Your task to perform on an android device: toggle pop-ups in chrome Image 0: 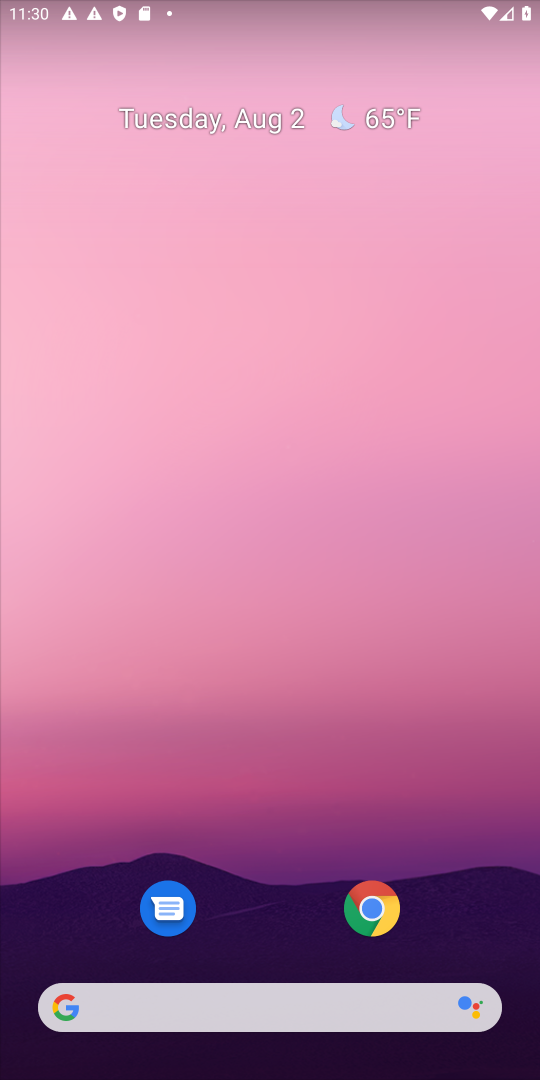
Step 0: drag from (278, 867) to (359, 82)
Your task to perform on an android device: toggle pop-ups in chrome Image 1: 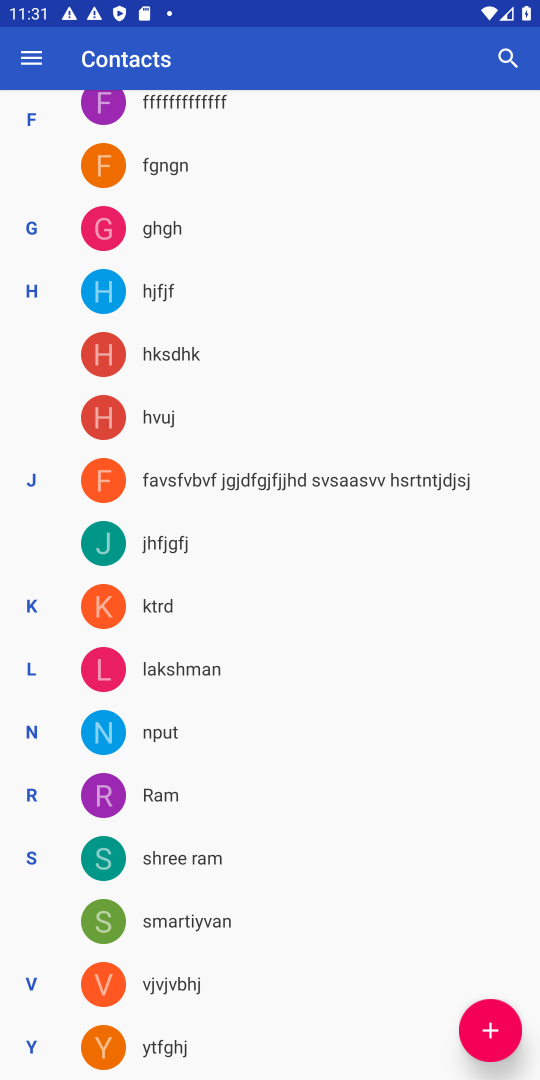
Step 1: press home button
Your task to perform on an android device: toggle pop-ups in chrome Image 2: 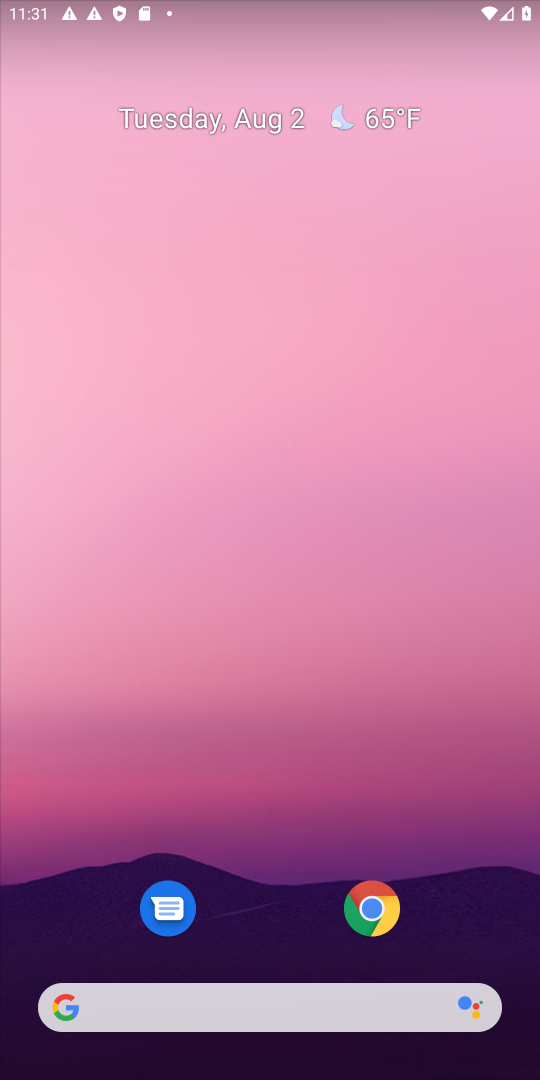
Step 2: click (373, 910)
Your task to perform on an android device: toggle pop-ups in chrome Image 3: 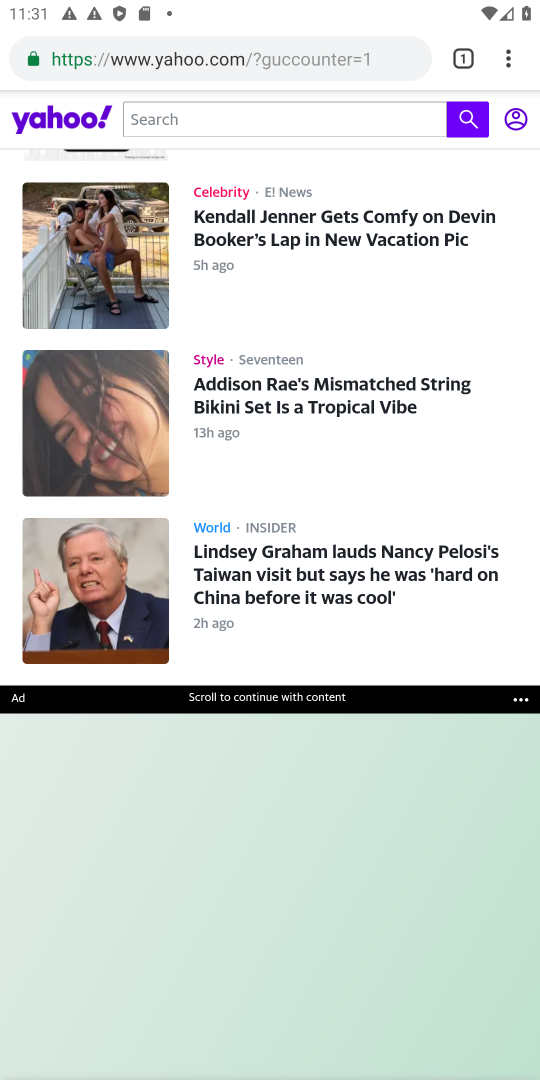
Step 3: click (505, 57)
Your task to perform on an android device: toggle pop-ups in chrome Image 4: 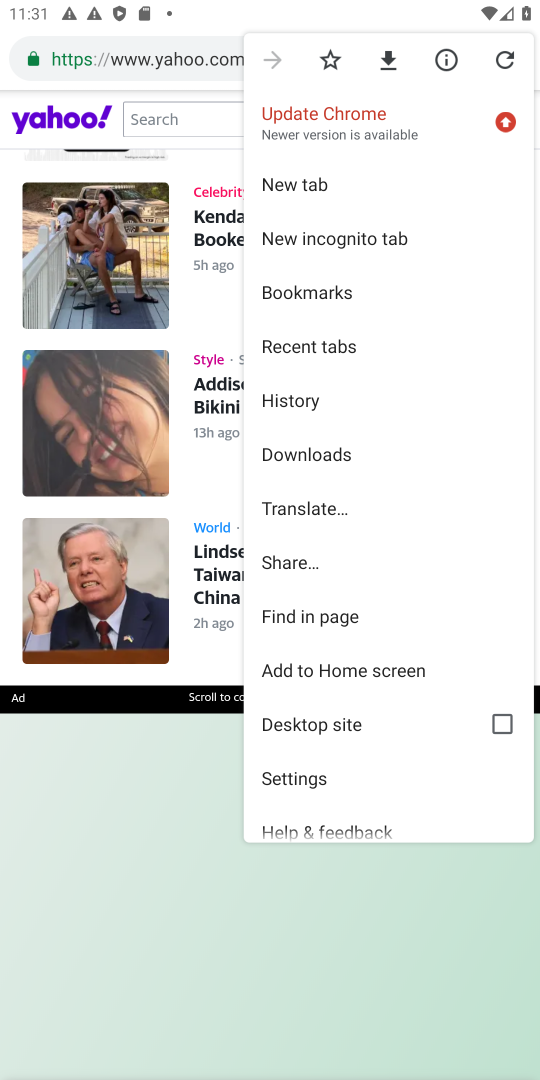
Step 4: click (338, 774)
Your task to perform on an android device: toggle pop-ups in chrome Image 5: 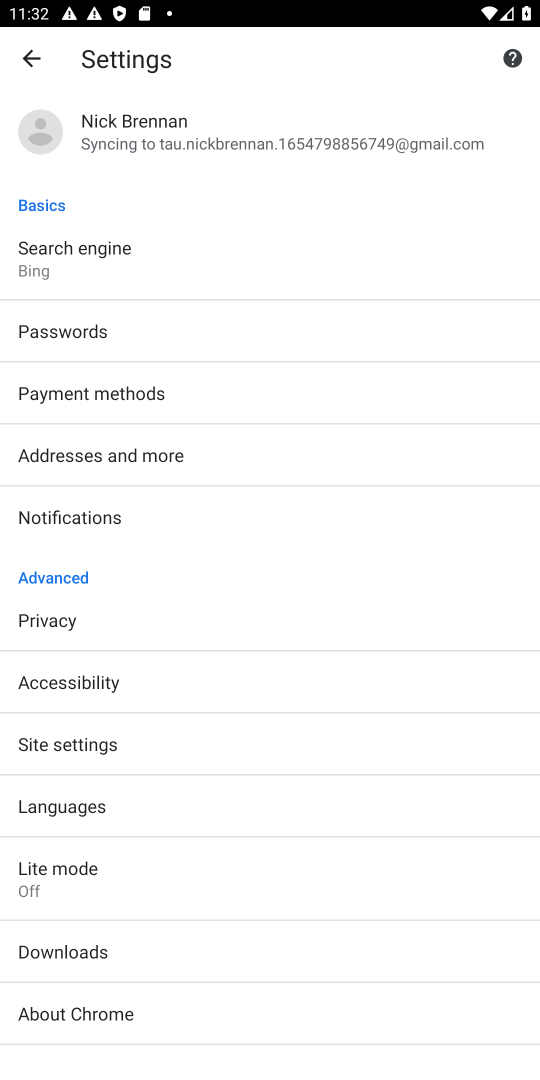
Step 5: click (130, 742)
Your task to perform on an android device: toggle pop-ups in chrome Image 6: 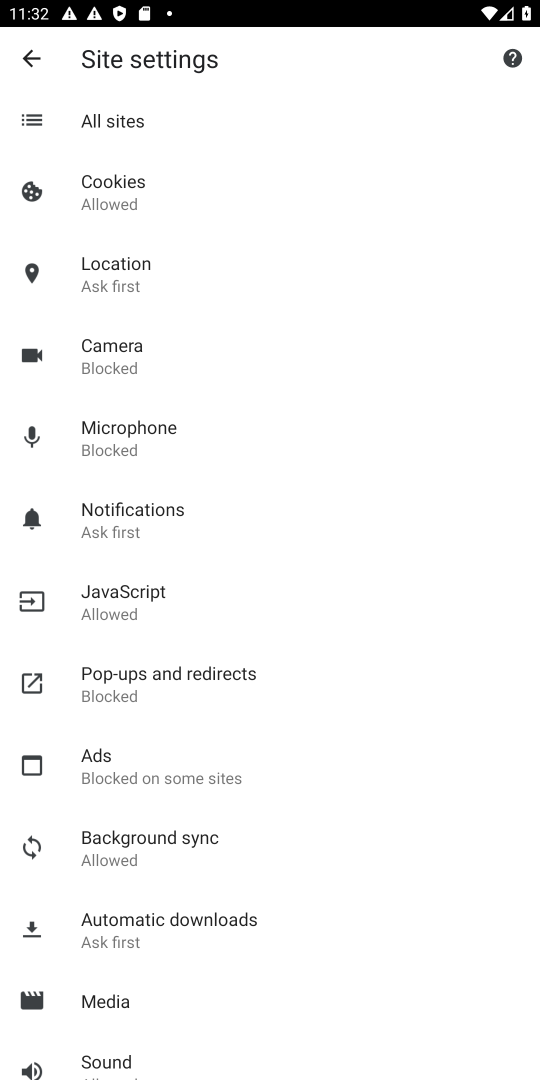
Step 6: click (196, 686)
Your task to perform on an android device: toggle pop-ups in chrome Image 7: 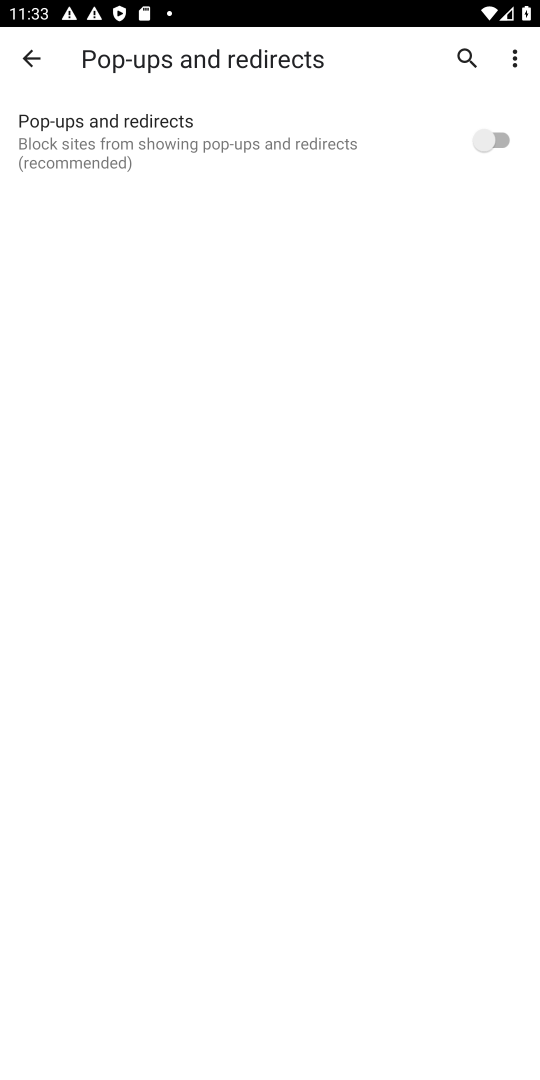
Step 7: click (483, 136)
Your task to perform on an android device: toggle pop-ups in chrome Image 8: 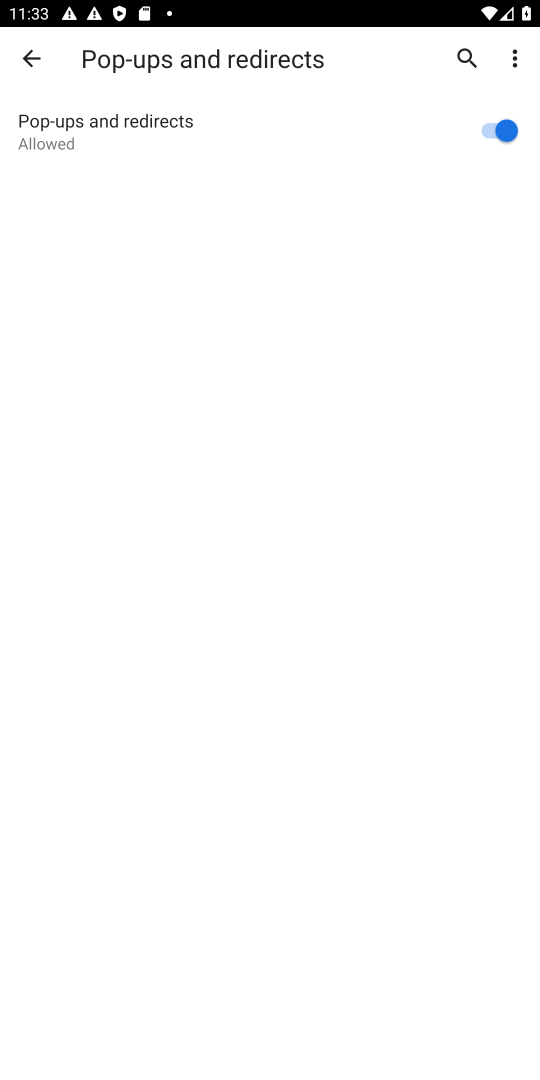
Step 8: task complete